Your task to perform on an android device: toggle priority inbox in the gmail app Image 0: 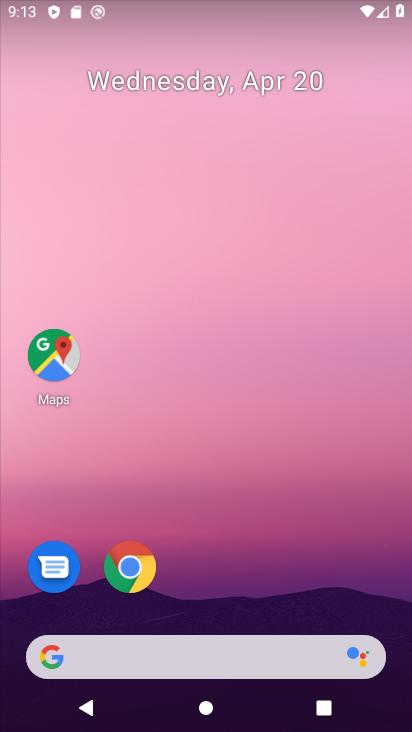
Step 0: drag from (363, 558) to (354, 176)
Your task to perform on an android device: toggle priority inbox in the gmail app Image 1: 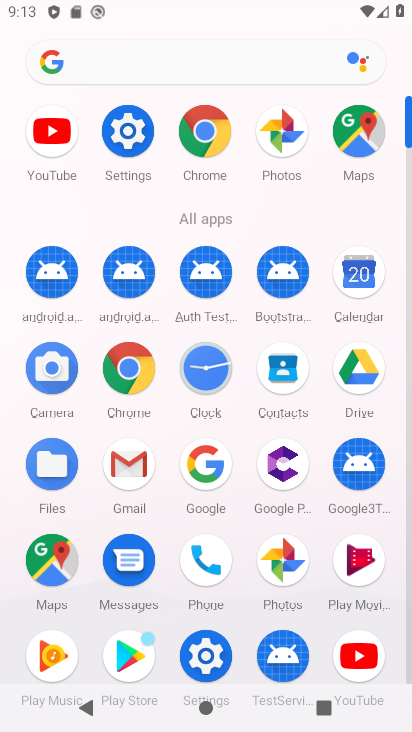
Step 1: click (136, 474)
Your task to perform on an android device: toggle priority inbox in the gmail app Image 2: 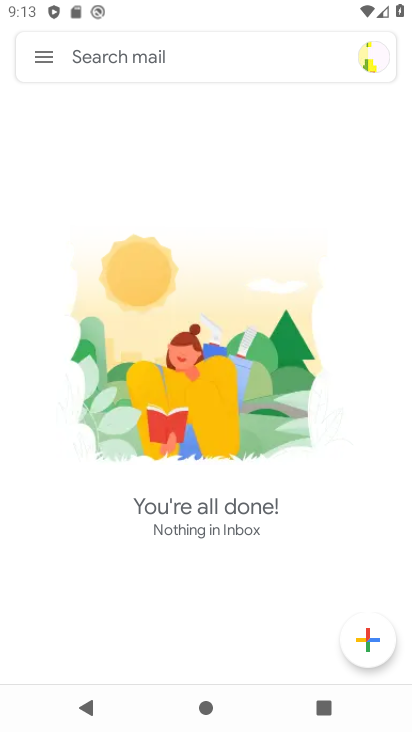
Step 2: click (47, 55)
Your task to perform on an android device: toggle priority inbox in the gmail app Image 3: 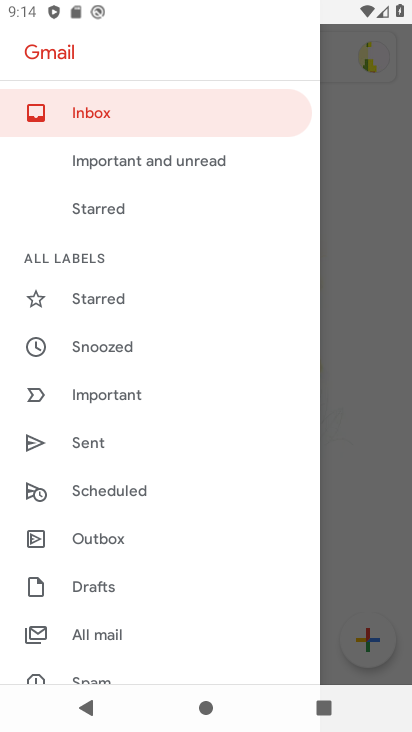
Step 3: drag from (247, 549) to (253, 367)
Your task to perform on an android device: toggle priority inbox in the gmail app Image 4: 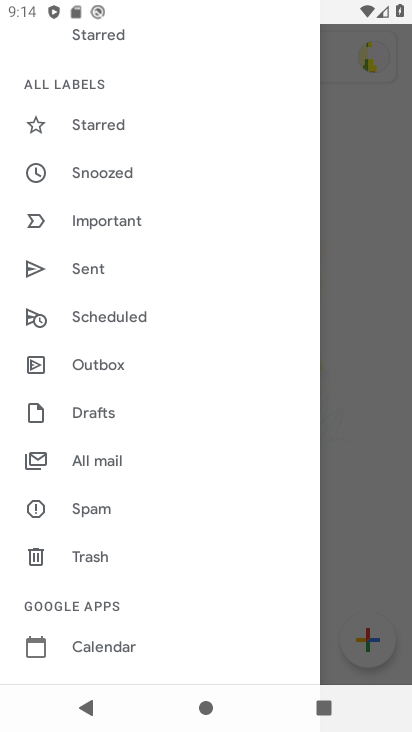
Step 4: drag from (256, 574) to (273, 389)
Your task to perform on an android device: toggle priority inbox in the gmail app Image 5: 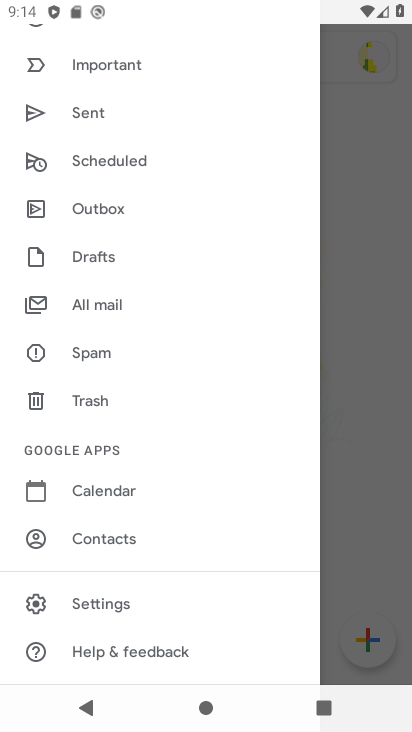
Step 5: drag from (240, 587) to (243, 453)
Your task to perform on an android device: toggle priority inbox in the gmail app Image 6: 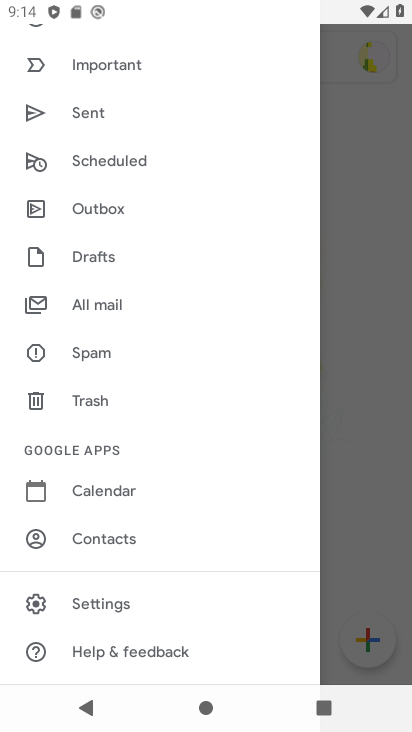
Step 6: click (132, 604)
Your task to perform on an android device: toggle priority inbox in the gmail app Image 7: 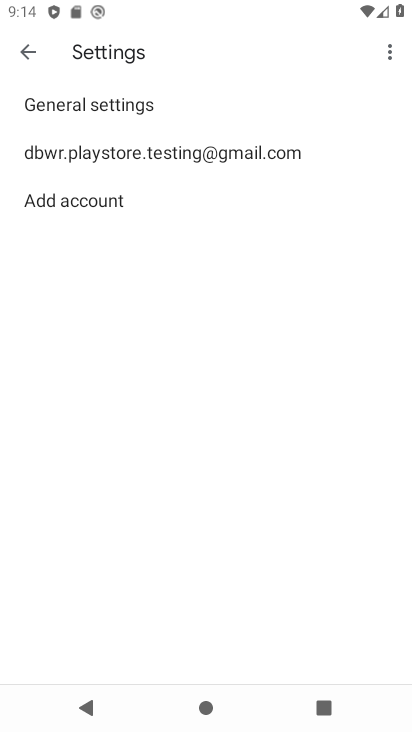
Step 7: click (272, 157)
Your task to perform on an android device: toggle priority inbox in the gmail app Image 8: 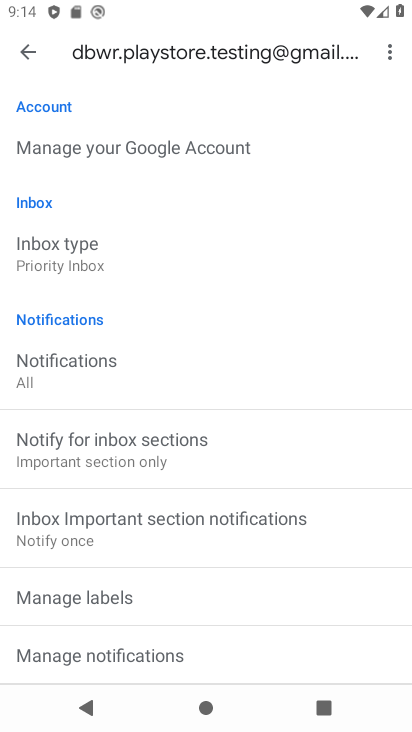
Step 8: drag from (342, 607) to (354, 401)
Your task to perform on an android device: toggle priority inbox in the gmail app Image 9: 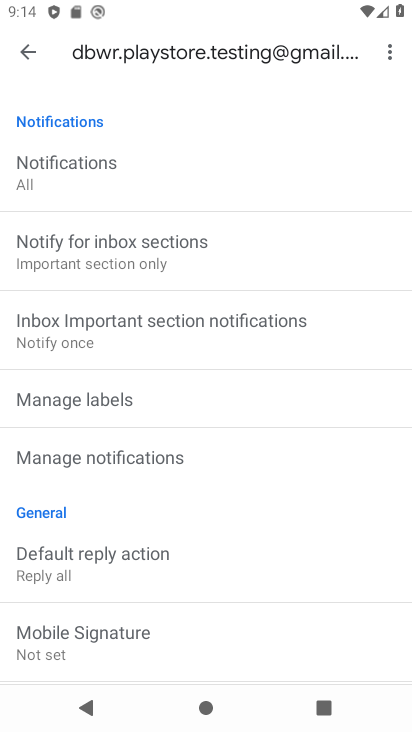
Step 9: drag from (340, 623) to (344, 392)
Your task to perform on an android device: toggle priority inbox in the gmail app Image 10: 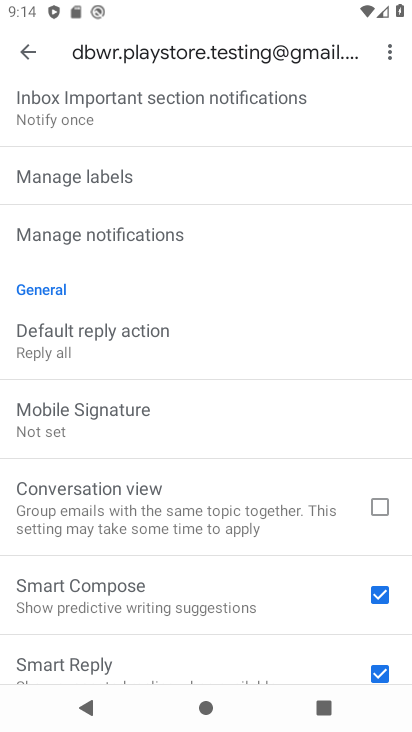
Step 10: drag from (314, 621) to (315, 378)
Your task to perform on an android device: toggle priority inbox in the gmail app Image 11: 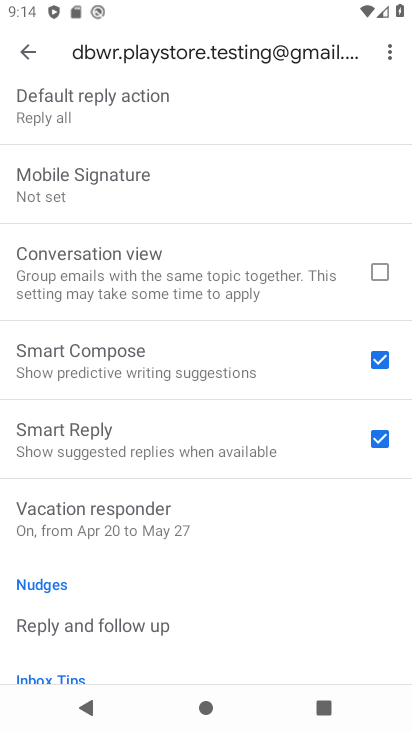
Step 11: drag from (304, 604) to (336, 424)
Your task to perform on an android device: toggle priority inbox in the gmail app Image 12: 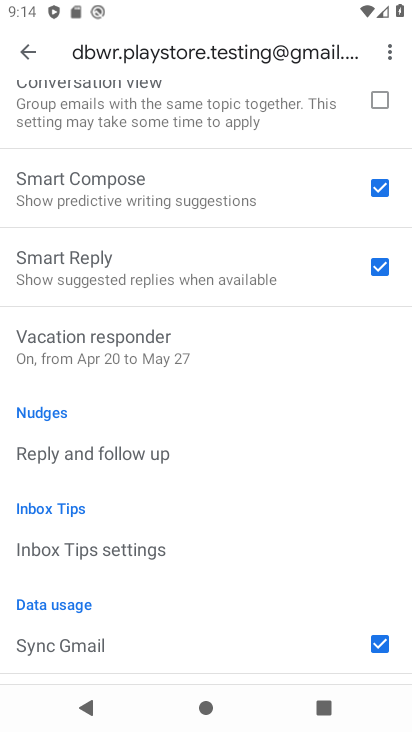
Step 12: drag from (270, 578) to (308, 344)
Your task to perform on an android device: toggle priority inbox in the gmail app Image 13: 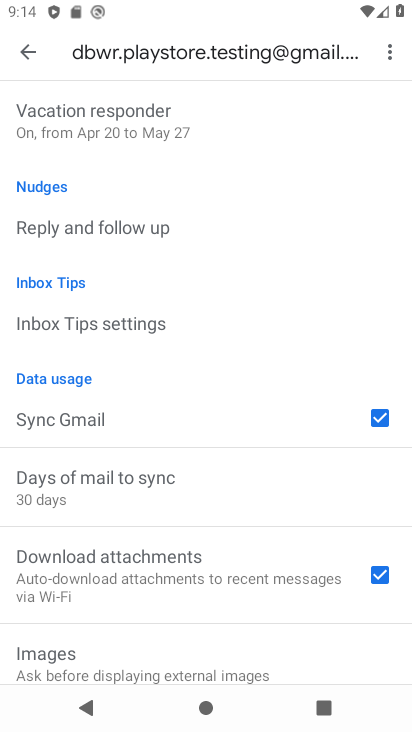
Step 13: drag from (309, 188) to (293, 451)
Your task to perform on an android device: toggle priority inbox in the gmail app Image 14: 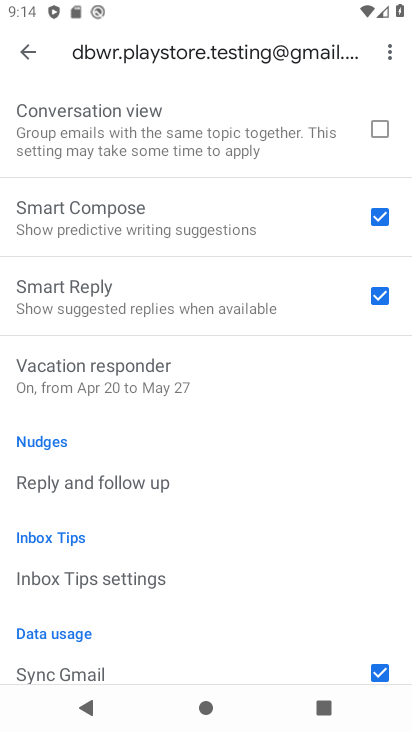
Step 14: drag from (301, 204) to (295, 398)
Your task to perform on an android device: toggle priority inbox in the gmail app Image 15: 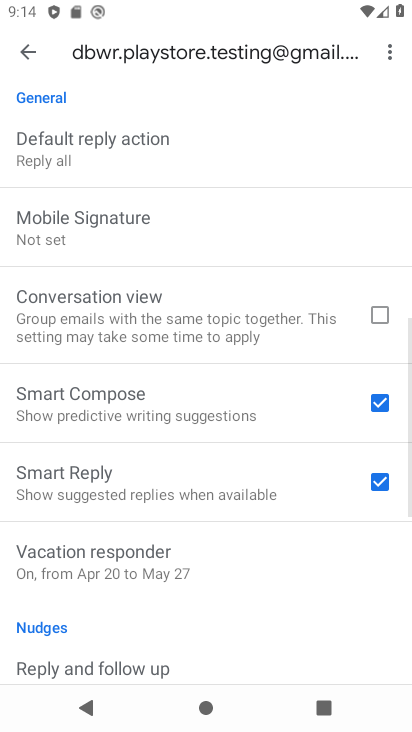
Step 15: drag from (296, 244) to (281, 424)
Your task to perform on an android device: toggle priority inbox in the gmail app Image 16: 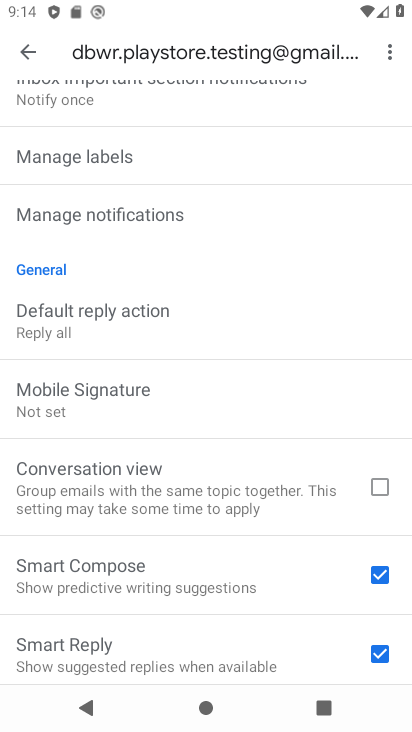
Step 16: drag from (275, 134) to (274, 407)
Your task to perform on an android device: toggle priority inbox in the gmail app Image 17: 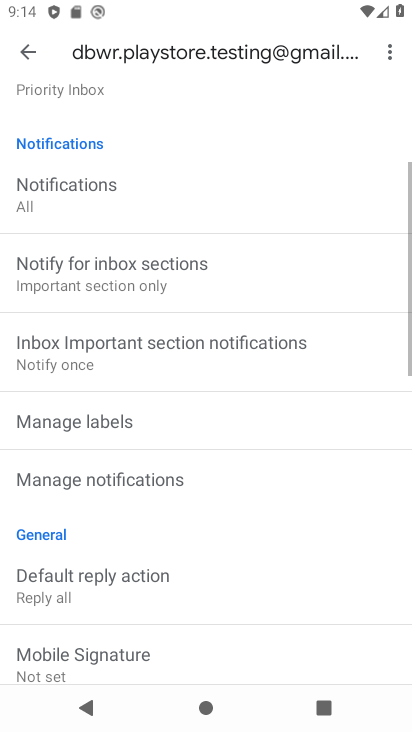
Step 17: drag from (289, 153) to (284, 345)
Your task to perform on an android device: toggle priority inbox in the gmail app Image 18: 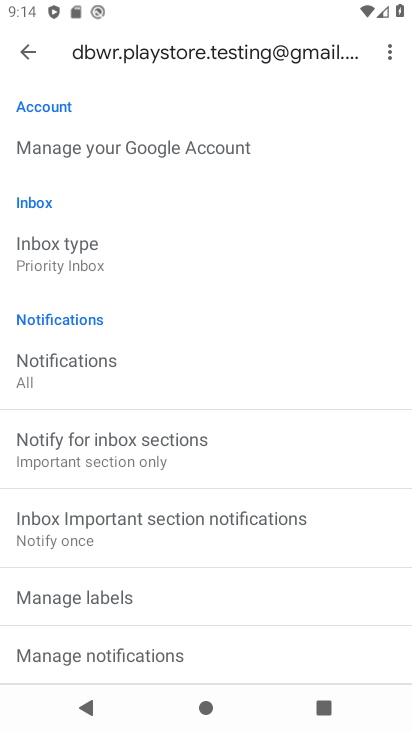
Step 18: click (75, 270)
Your task to perform on an android device: toggle priority inbox in the gmail app Image 19: 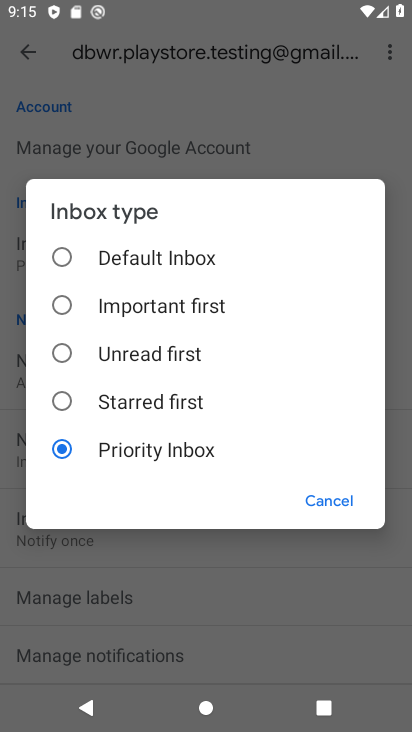
Step 19: task complete